Your task to perform on an android device: What is the recent news? Image 0: 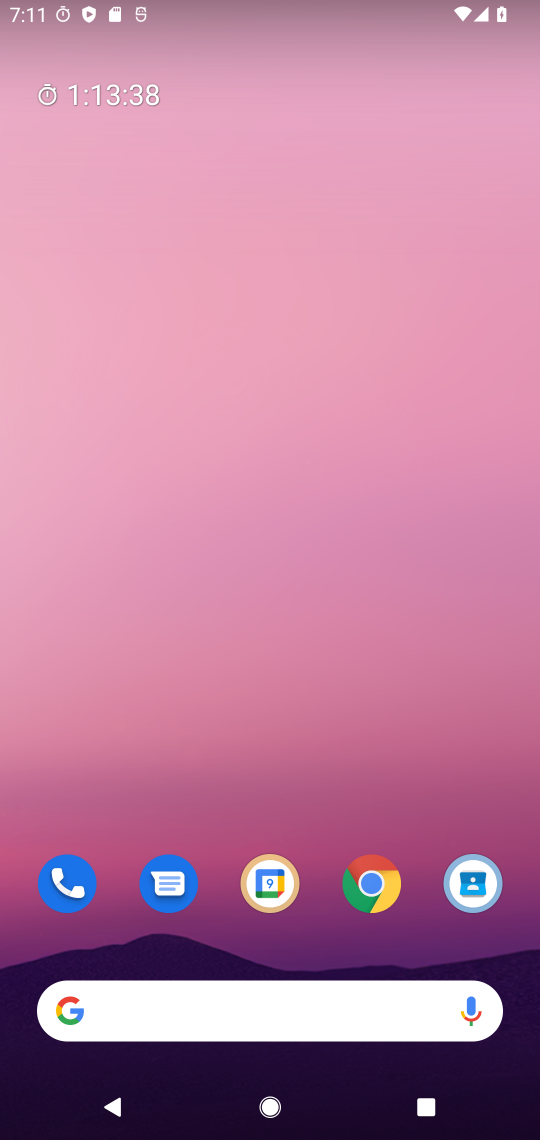
Step 0: drag from (272, 788) to (297, 98)
Your task to perform on an android device: What is the recent news? Image 1: 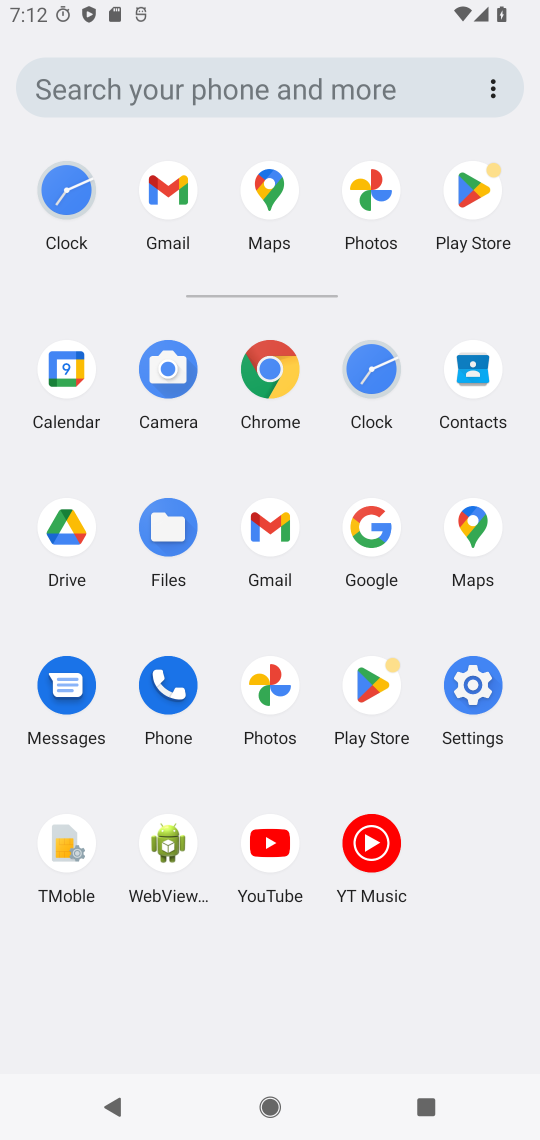
Step 1: click (350, 545)
Your task to perform on an android device: What is the recent news? Image 2: 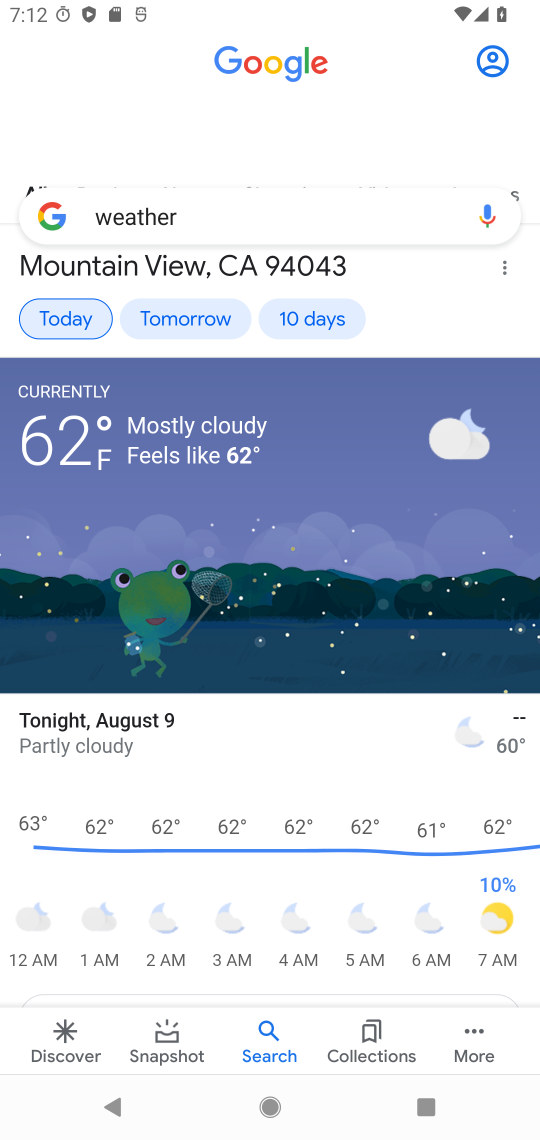
Step 2: click (237, 200)
Your task to perform on an android device: What is the recent news? Image 3: 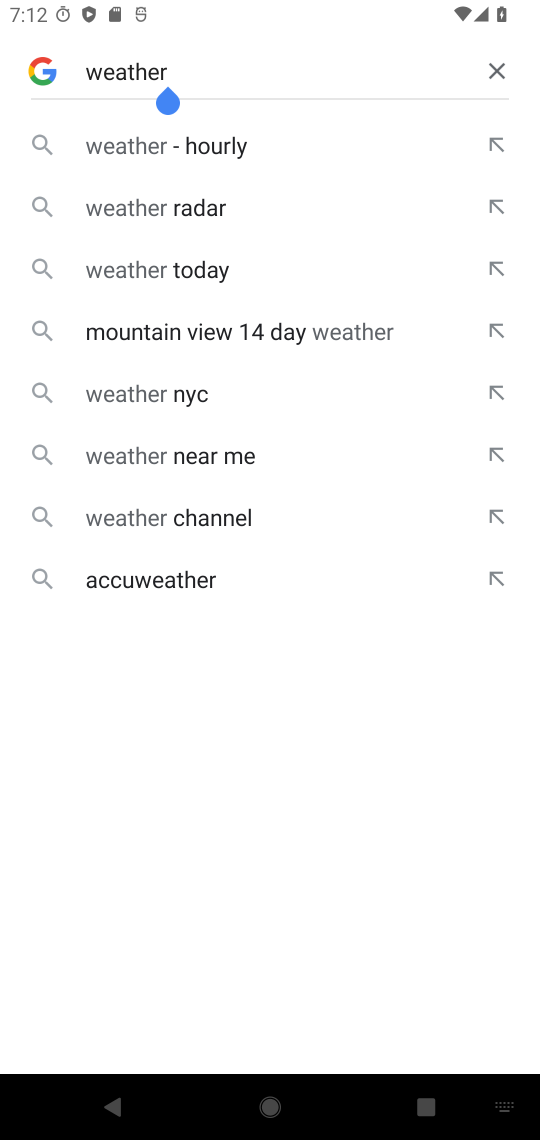
Step 3: click (504, 73)
Your task to perform on an android device: What is the recent news? Image 4: 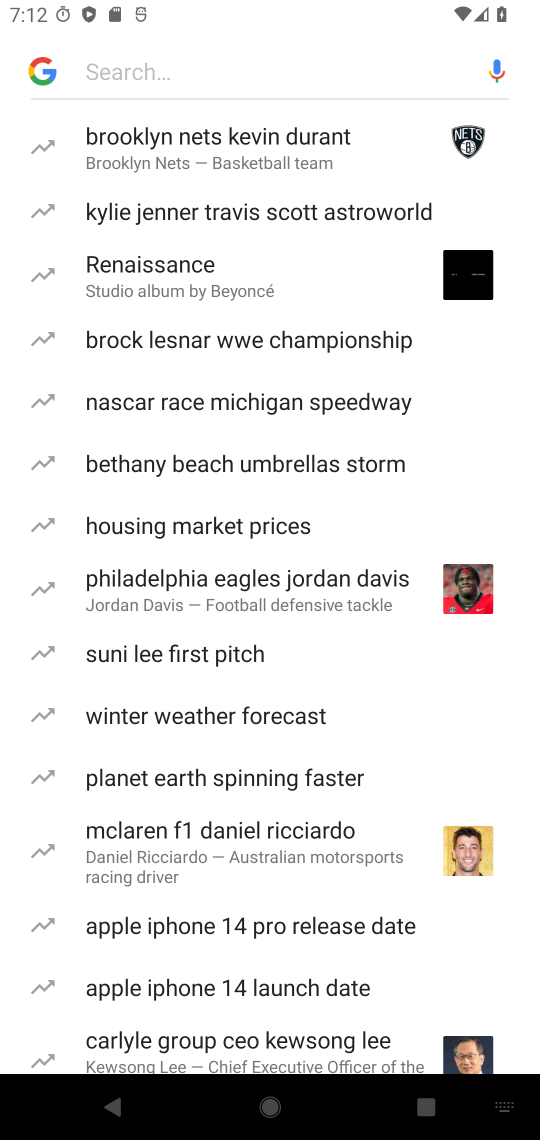
Step 4: type "recent news"
Your task to perform on an android device: What is the recent news? Image 5: 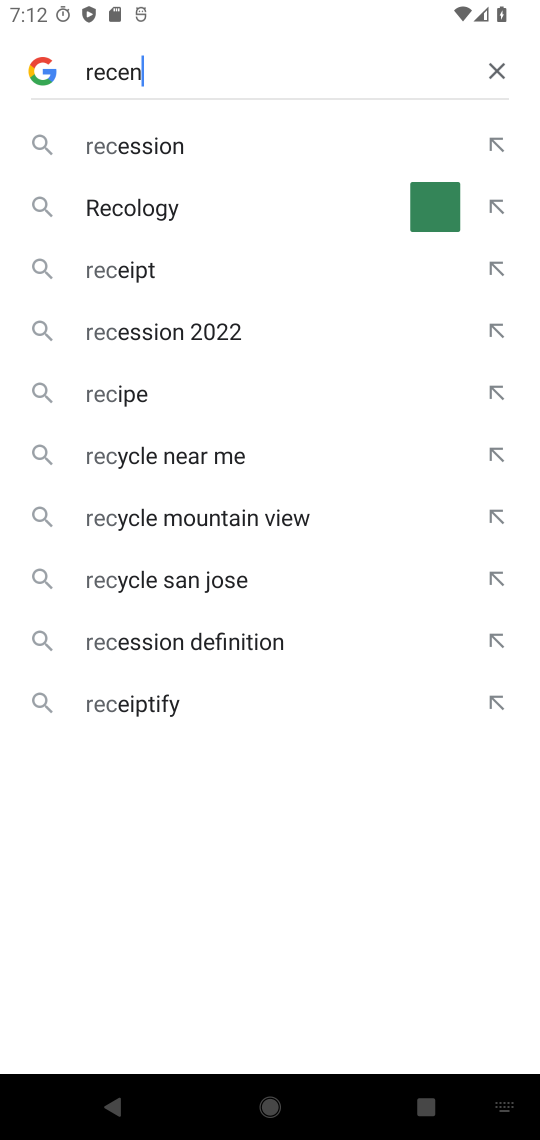
Step 5: type ""
Your task to perform on an android device: What is the recent news? Image 6: 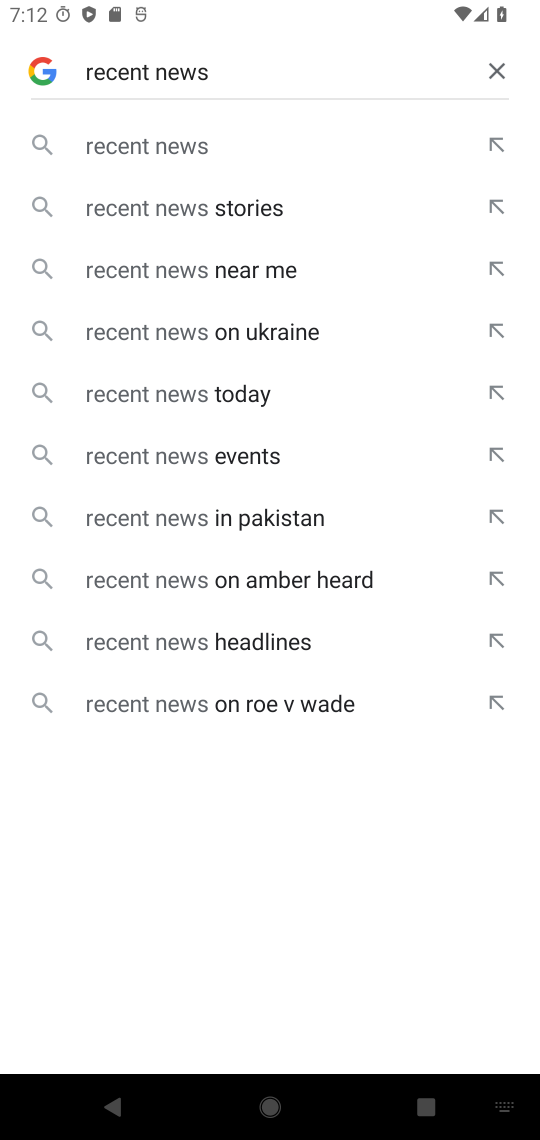
Step 6: click (179, 143)
Your task to perform on an android device: What is the recent news? Image 7: 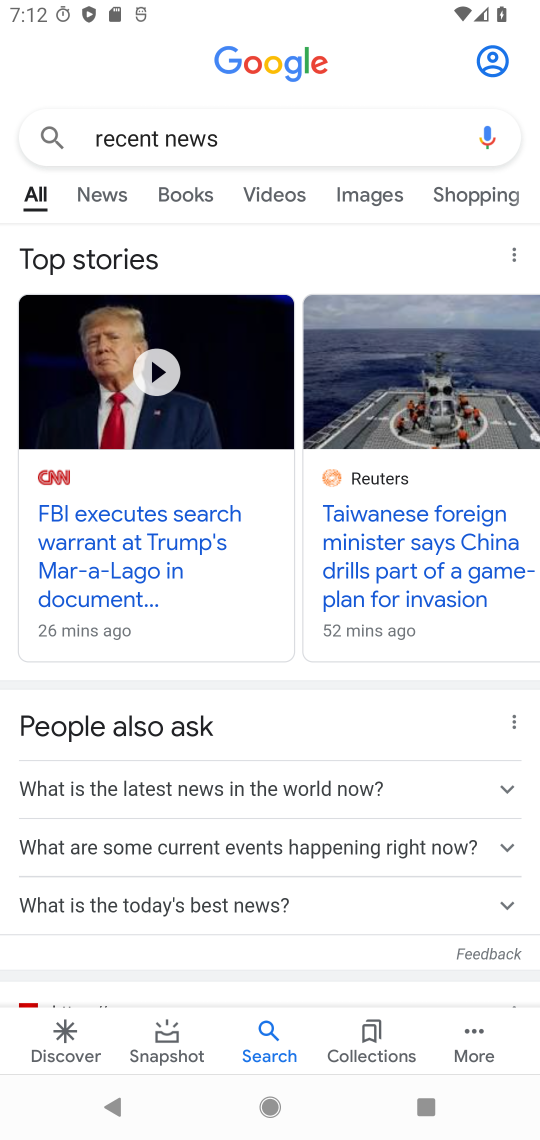
Step 7: click (97, 192)
Your task to perform on an android device: What is the recent news? Image 8: 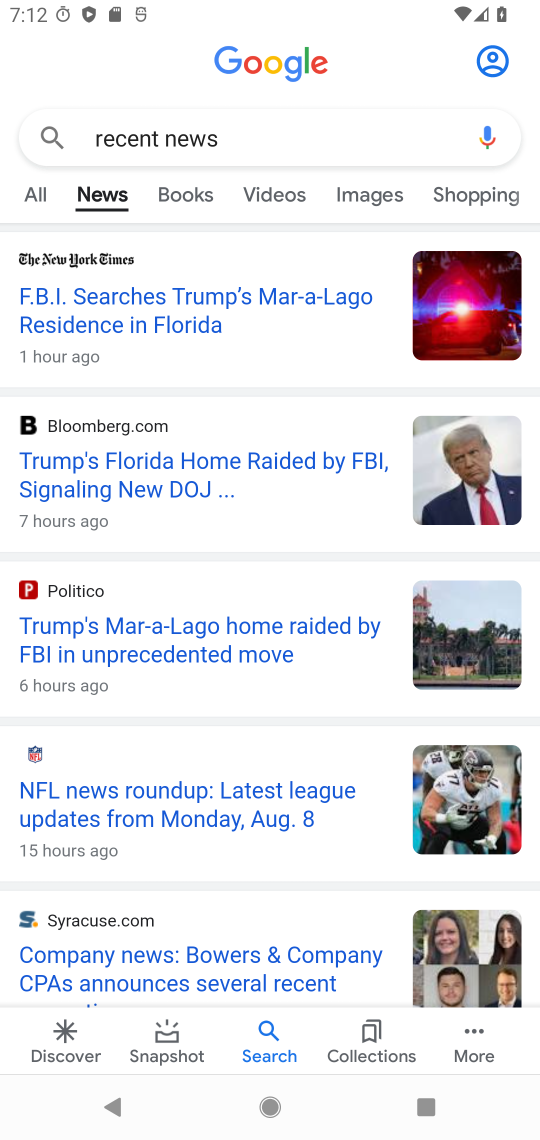
Step 8: task complete